Your task to perform on an android device: When is my next appointment? Image 0: 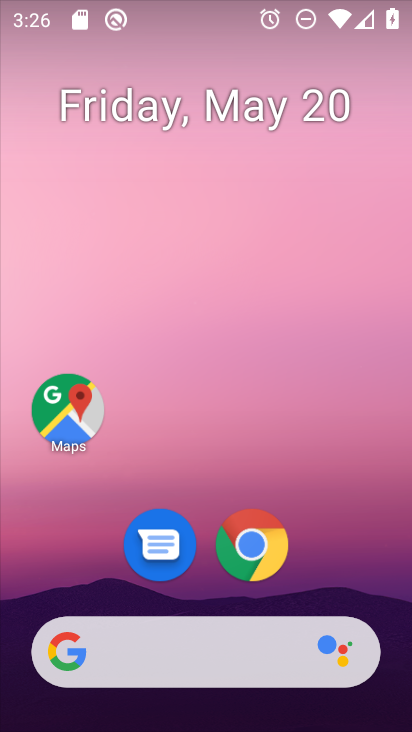
Step 0: click (224, 118)
Your task to perform on an android device: When is my next appointment? Image 1: 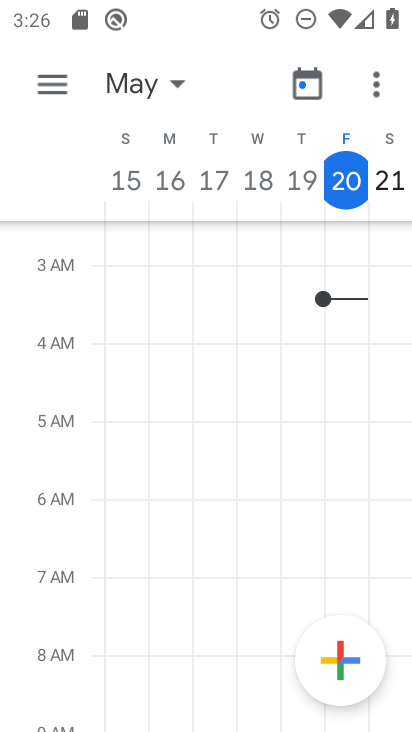
Step 1: click (60, 90)
Your task to perform on an android device: When is my next appointment? Image 2: 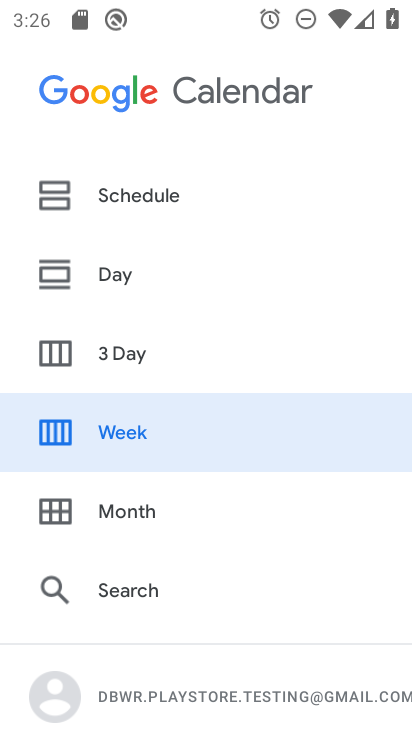
Step 2: click (135, 195)
Your task to perform on an android device: When is my next appointment? Image 3: 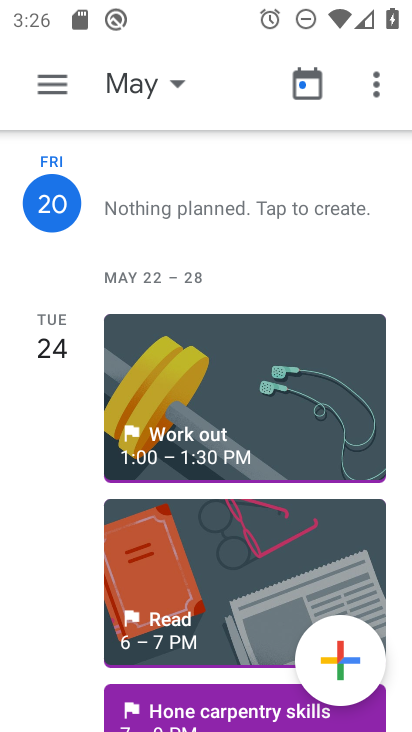
Step 3: click (281, 451)
Your task to perform on an android device: When is my next appointment? Image 4: 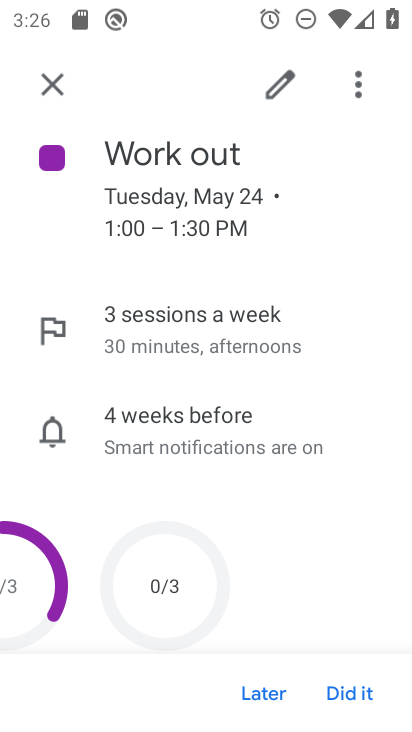
Step 4: task complete